Your task to perform on an android device: What is the news today? Image 0: 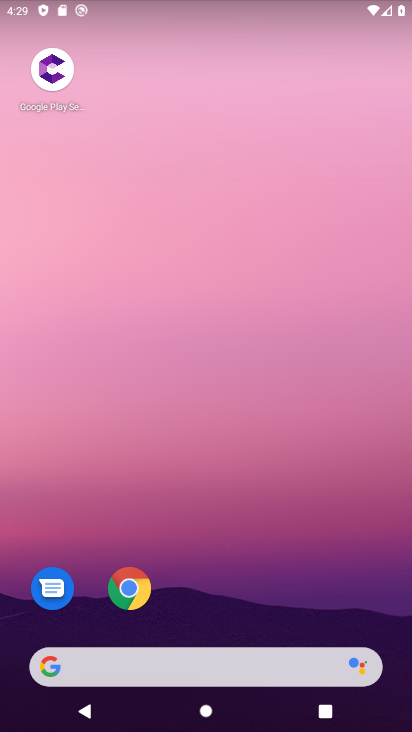
Step 0: click (132, 600)
Your task to perform on an android device: What is the news today? Image 1: 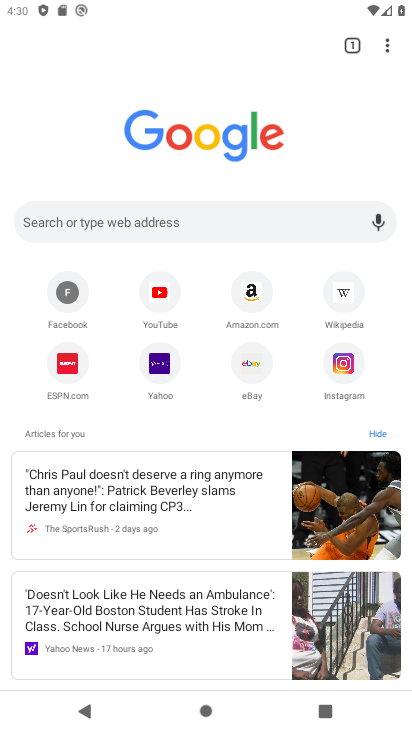
Step 1: click (224, 224)
Your task to perform on an android device: What is the news today? Image 2: 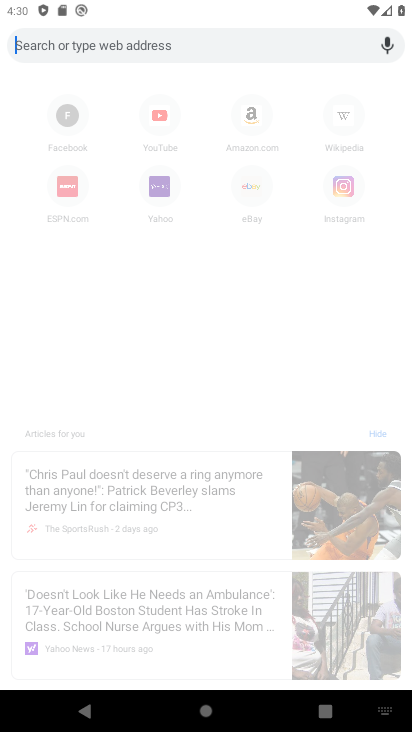
Step 2: type "What is the news today?"
Your task to perform on an android device: What is the news today? Image 3: 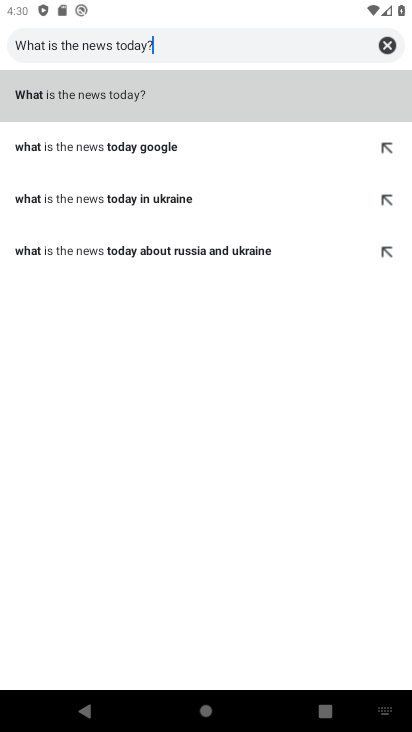
Step 3: click (87, 94)
Your task to perform on an android device: What is the news today? Image 4: 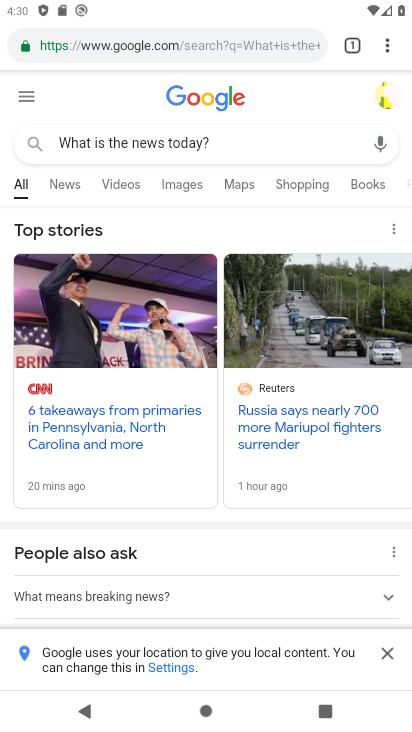
Step 4: click (74, 185)
Your task to perform on an android device: What is the news today? Image 5: 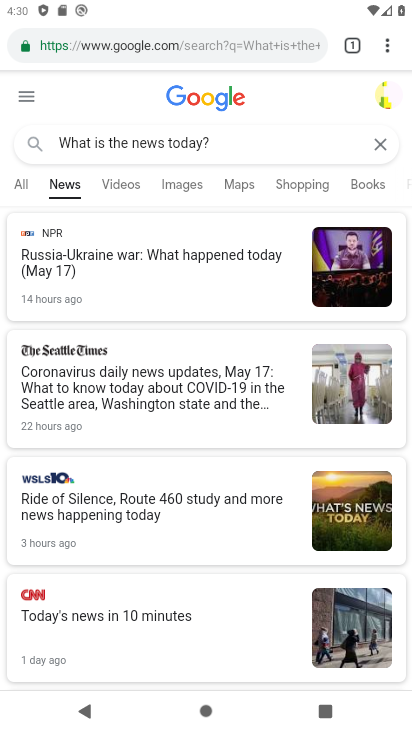
Step 5: task complete